Your task to perform on an android device: Open Android settings Image 0: 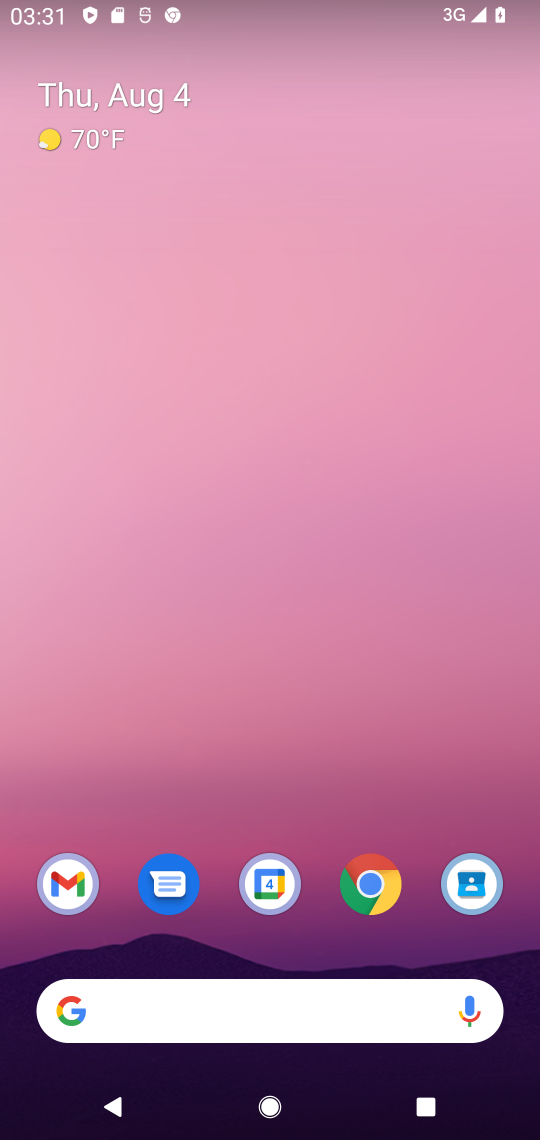
Step 0: press home button
Your task to perform on an android device: Open Android settings Image 1: 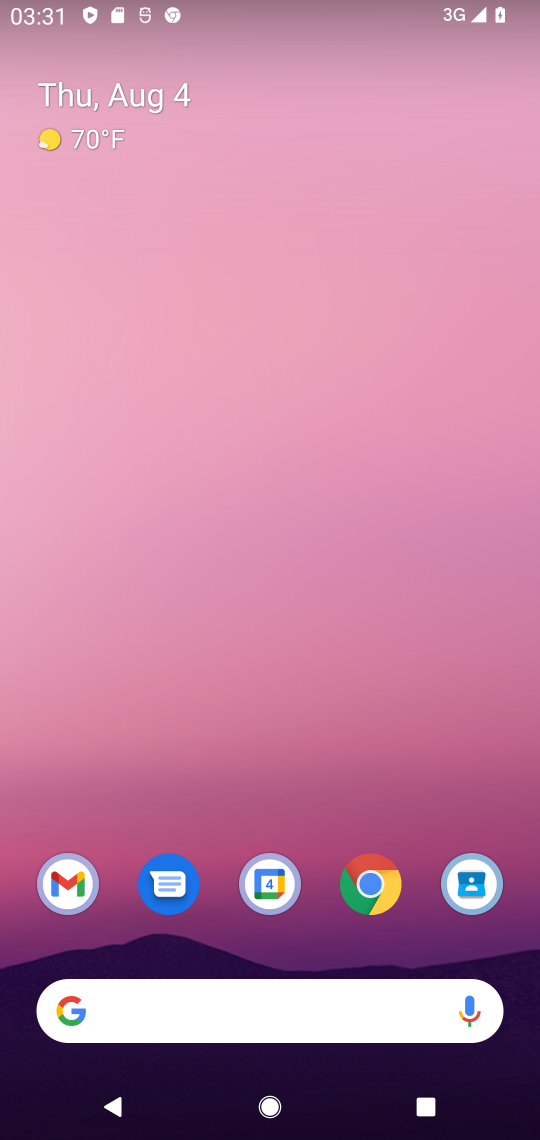
Step 1: drag from (411, 942) to (452, 375)
Your task to perform on an android device: Open Android settings Image 2: 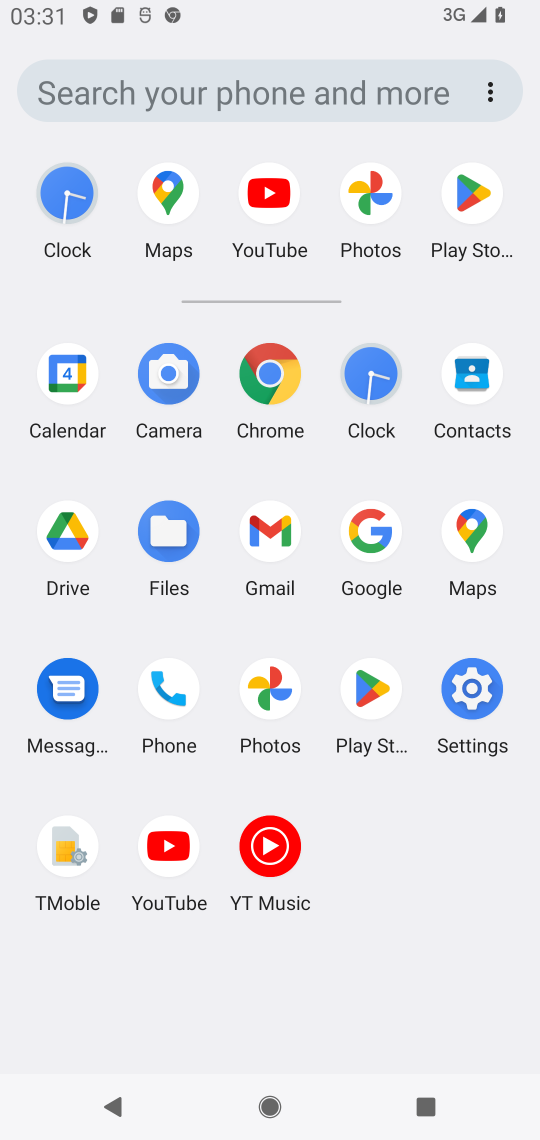
Step 2: click (475, 702)
Your task to perform on an android device: Open Android settings Image 3: 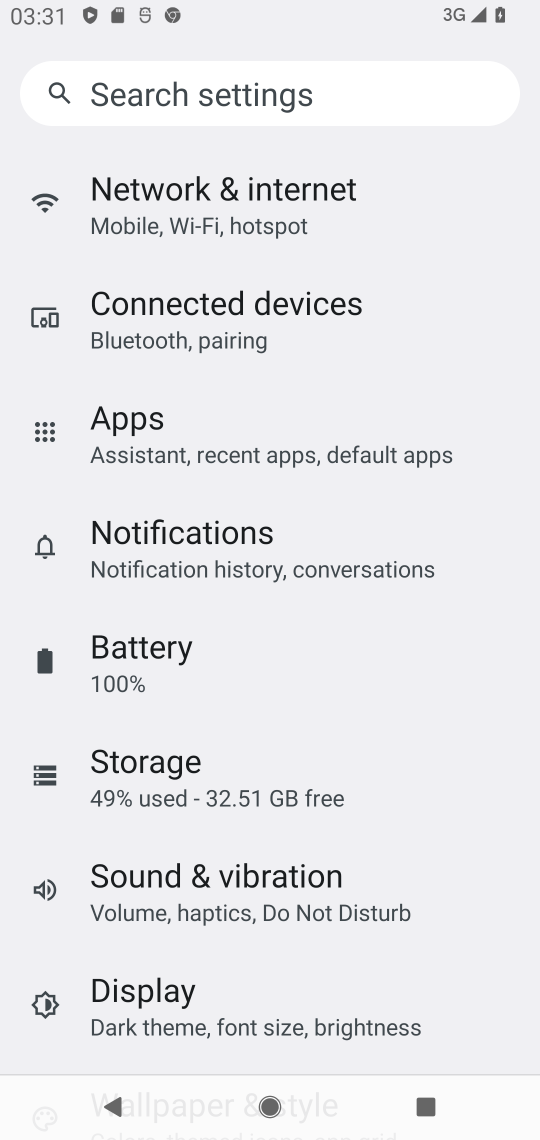
Step 3: drag from (485, 712) to (492, 614)
Your task to perform on an android device: Open Android settings Image 4: 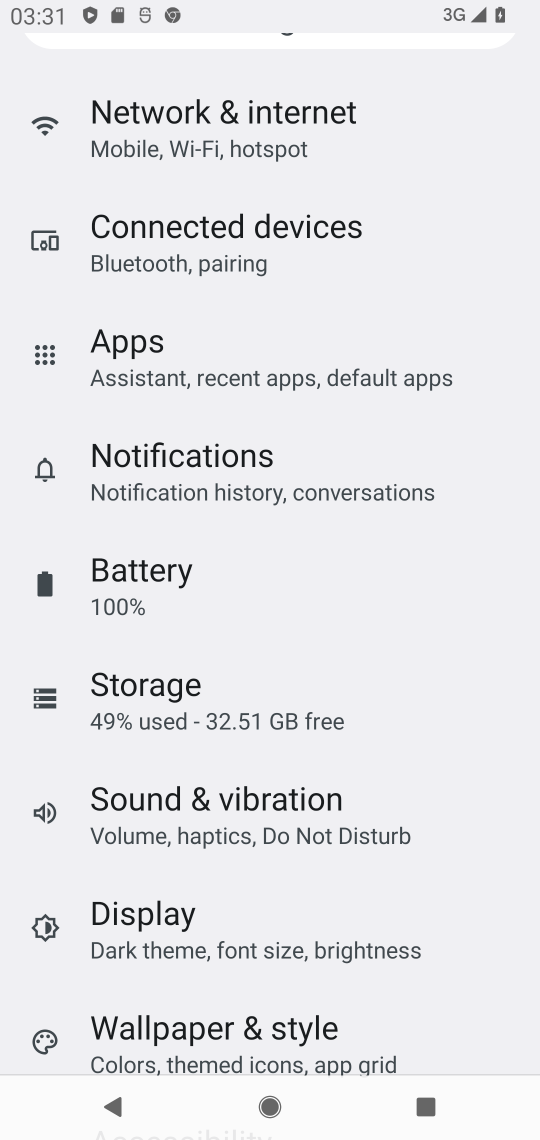
Step 4: drag from (455, 835) to (472, 689)
Your task to perform on an android device: Open Android settings Image 5: 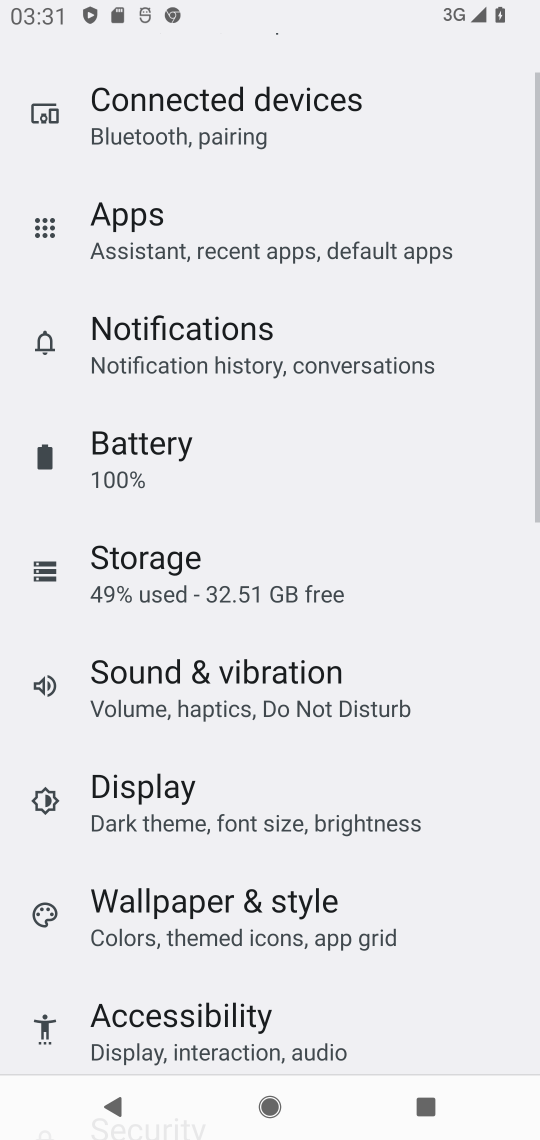
Step 5: drag from (466, 886) to (482, 723)
Your task to perform on an android device: Open Android settings Image 6: 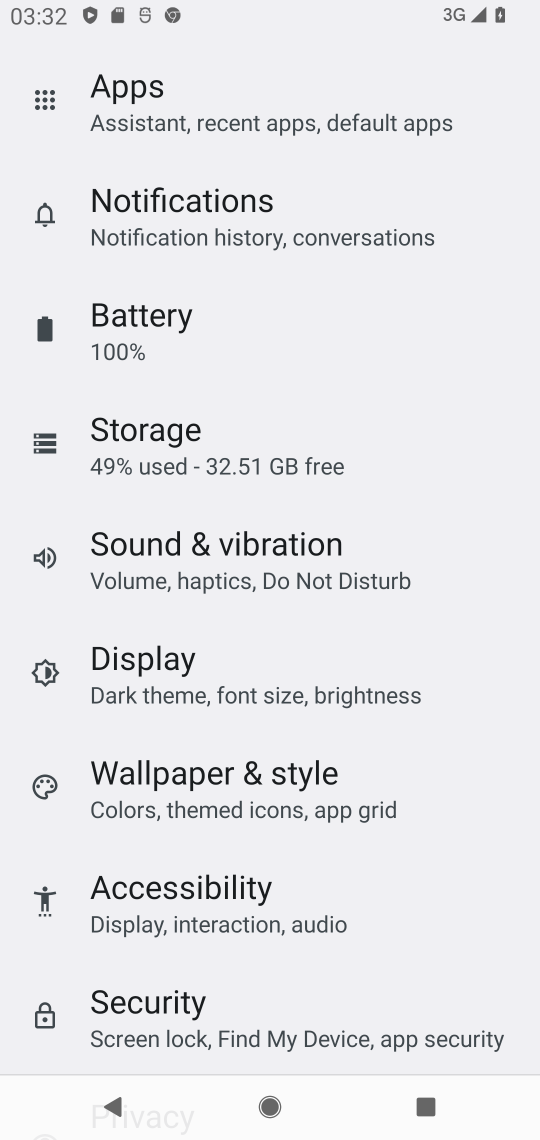
Step 6: drag from (455, 912) to (461, 753)
Your task to perform on an android device: Open Android settings Image 7: 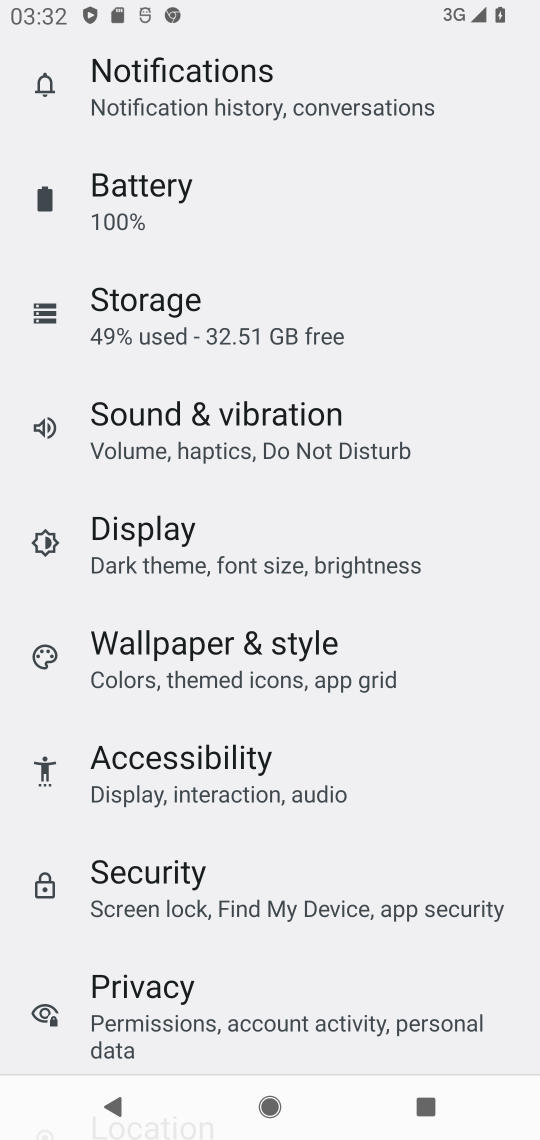
Step 7: drag from (481, 832) to (488, 676)
Your task to perform on an android device: Open Android settings Image 8: 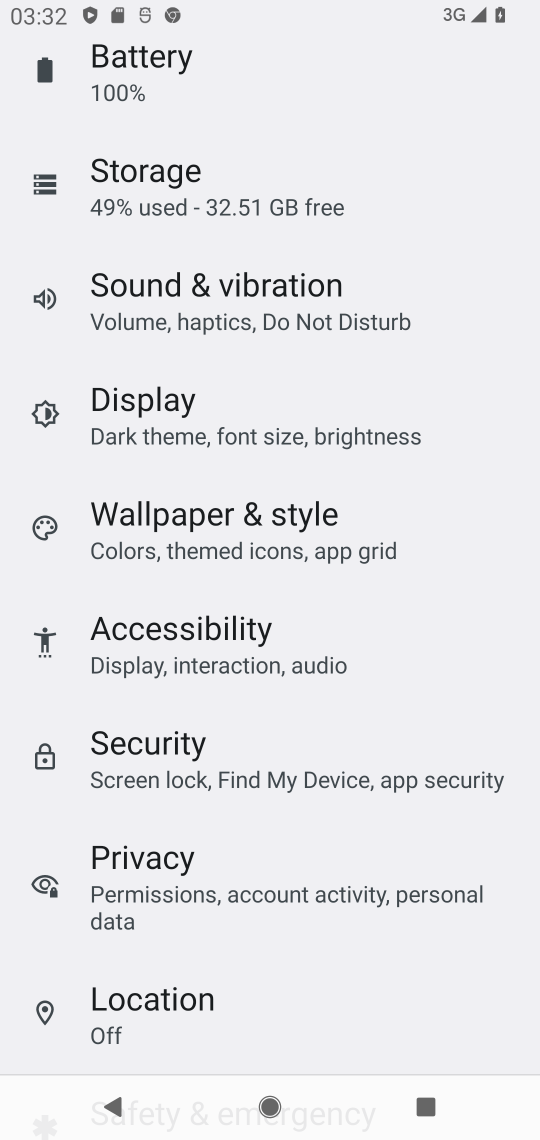
Step 8: drag from (479, 931) to (479, 763)
Your task to perform on an android device: Open Android settings Image 9: 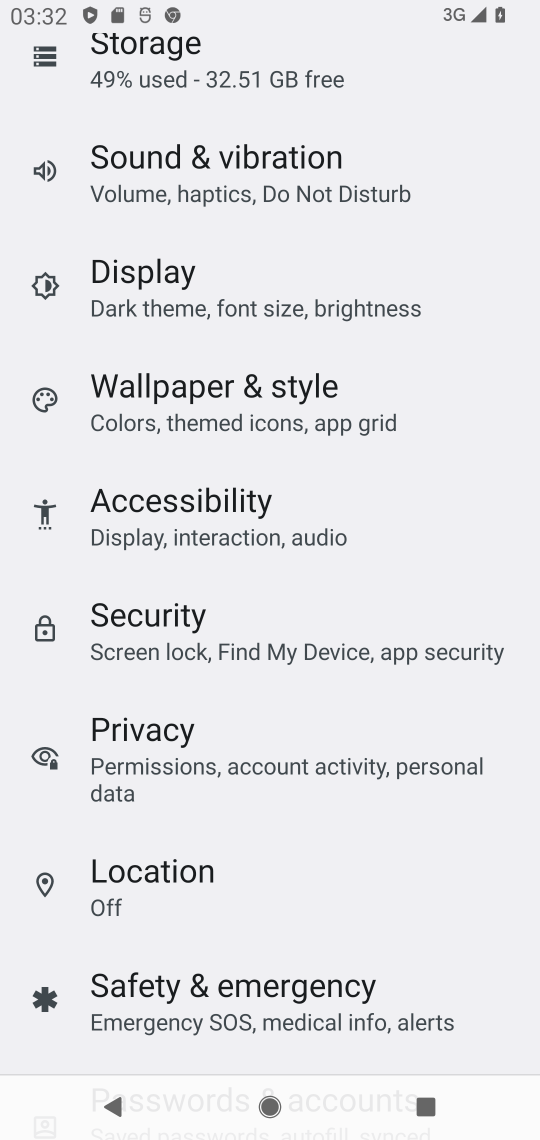
Step 9: drag from (463, 987) to (463, 770)
Your task to perform on an android device: Open Android settings Image 10: 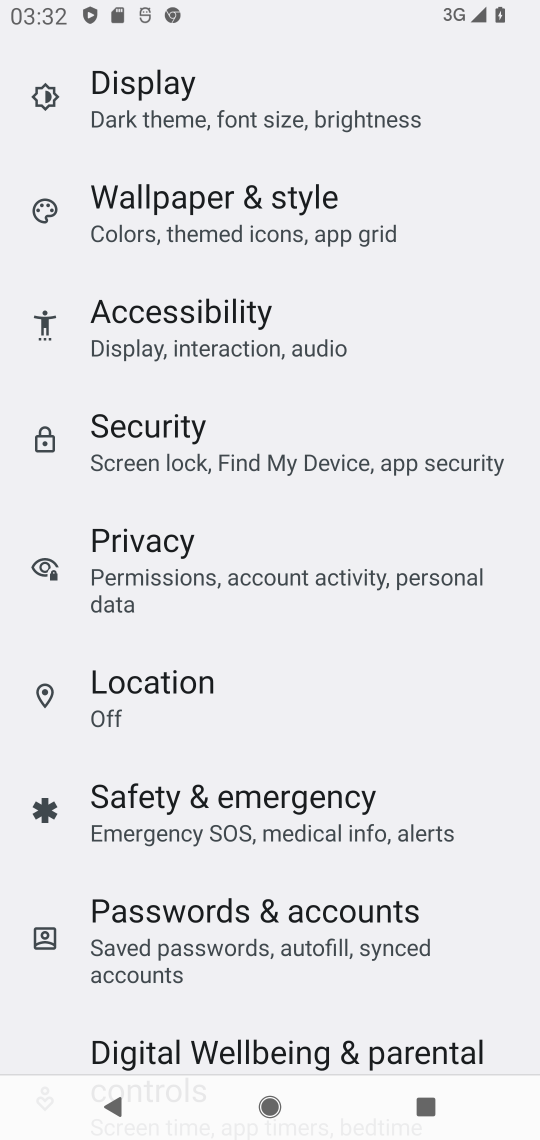
Step 10: drag from (470, 975) to (467, 748)
Your task to perform on an android device: Open Android settings Image 11: 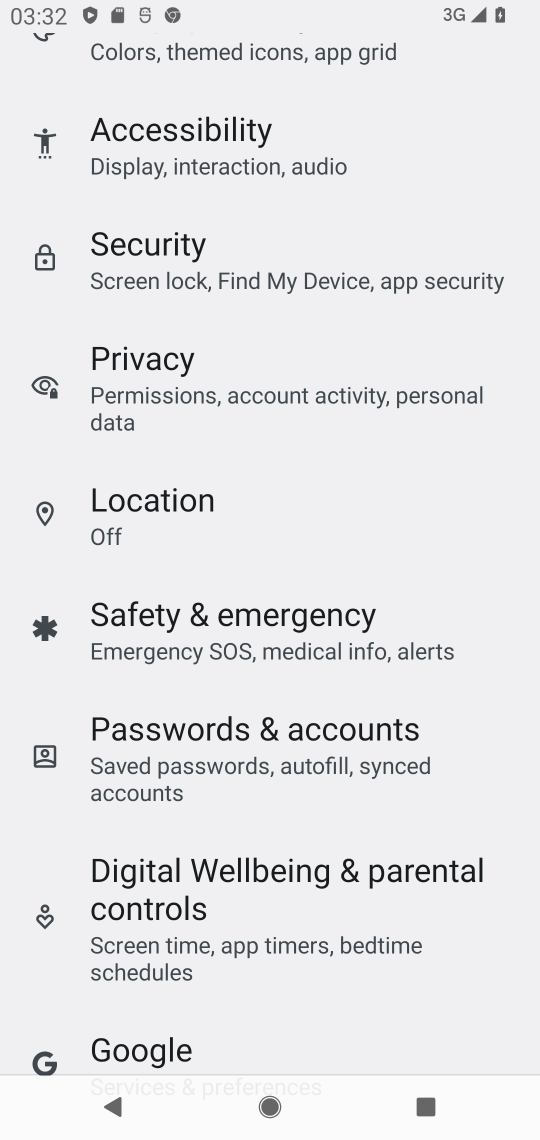
Step 11: drag from (457, 1023) to (466, 786)
Your task to perform on an android device: Open Android settings Image 12: 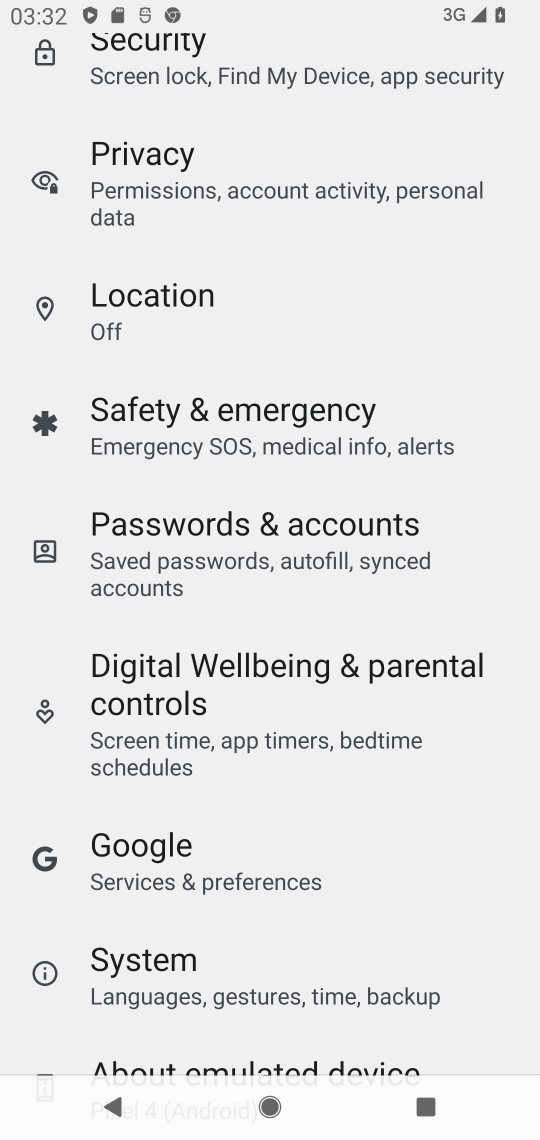
Step 12: drag from (473, 1037) to (475, 811)
Your task to perform on an android device: Open Android settings Image 13: 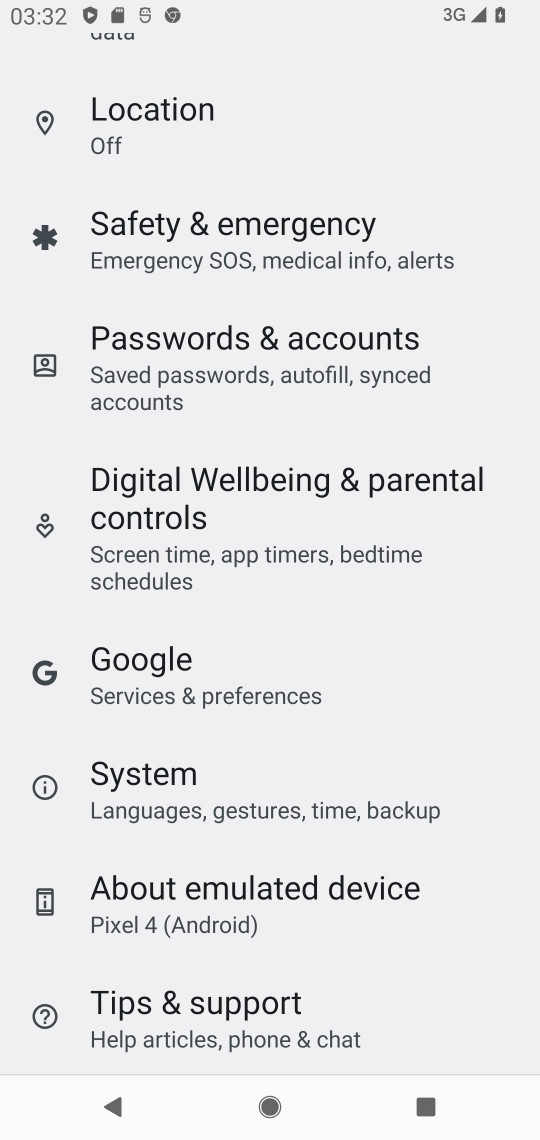
Step 13: click (419, 786)
Your task to perform on an android device: Open Android settings Image 14: 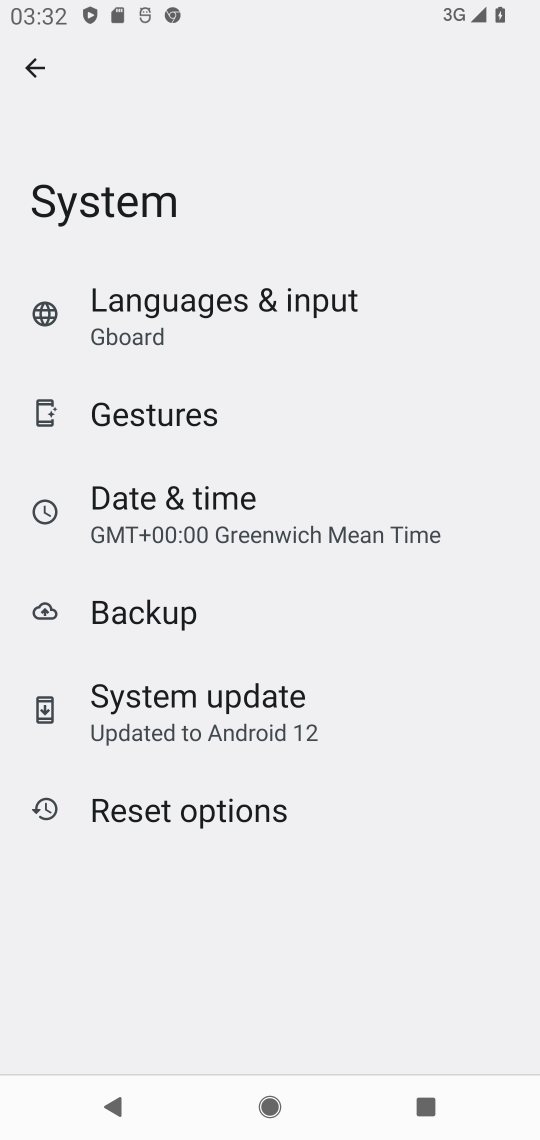
Step 14: task complete